Your task to perform on an android device: turn on data saver in the chrome app Image 0: 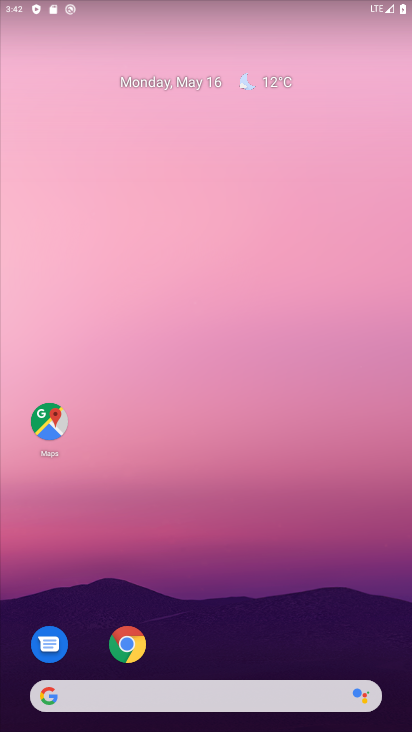
Step 0: click (133, 637)
Your task to perform on an android device: turn on data saver in the chrome app Image 1: 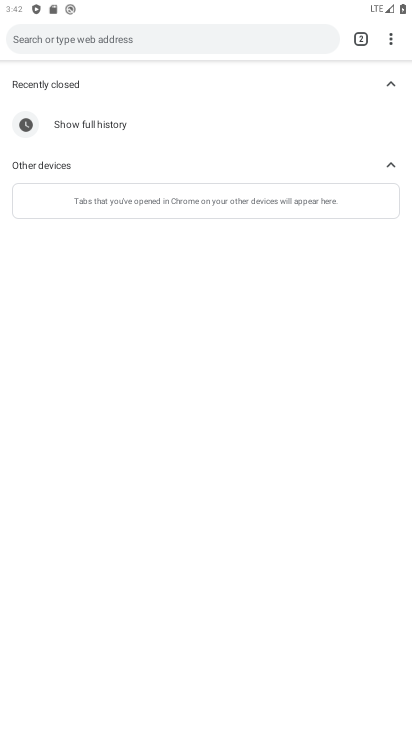
Step 1: click (381, 31)
Your task to perform on an android device: turn on data saver in the chrome app Image 2: 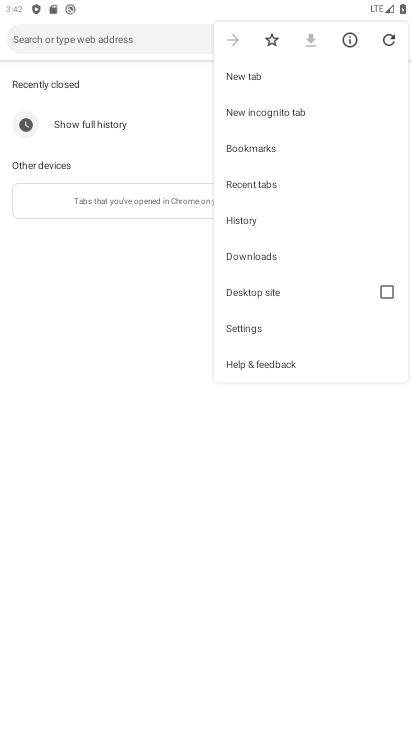
Step 2: click (267, 327)
Your task to perform on an android device: turn on data saver in the chrome app Image 3: 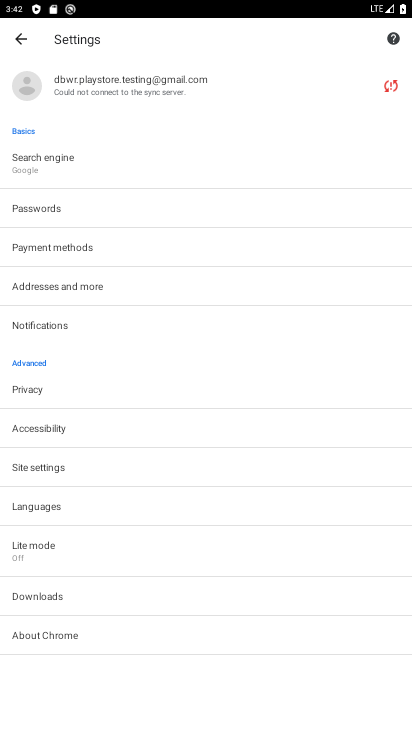
Step 3: click (91, 554)
Your task to perform on an android device: turn on data saver in the chrome app Image 4: 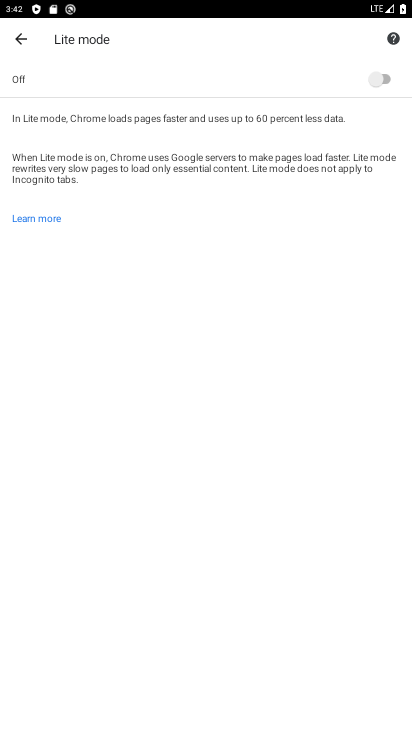
Step 4: click (370, 75)
Your task to perform on an android device: turn on data saver in the chrome app Image 5: 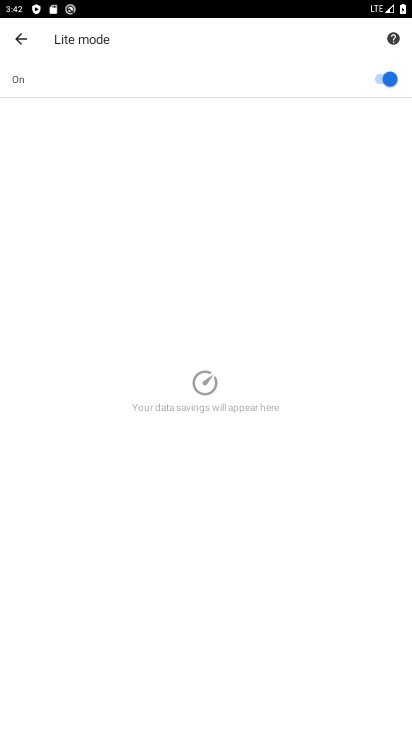
Step 5: task complete